Your task to perform on an android device: turn on translation in the chrome app Image 0: 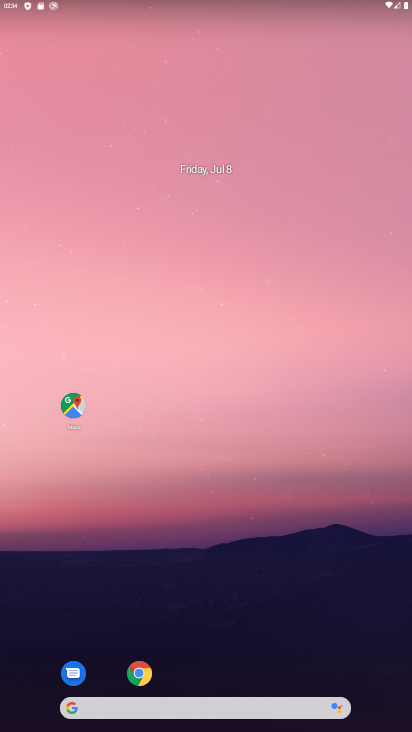
Step 0: click (134, 681)
Your task to perform on an android device: turn on translation in the chrome app Image 1: 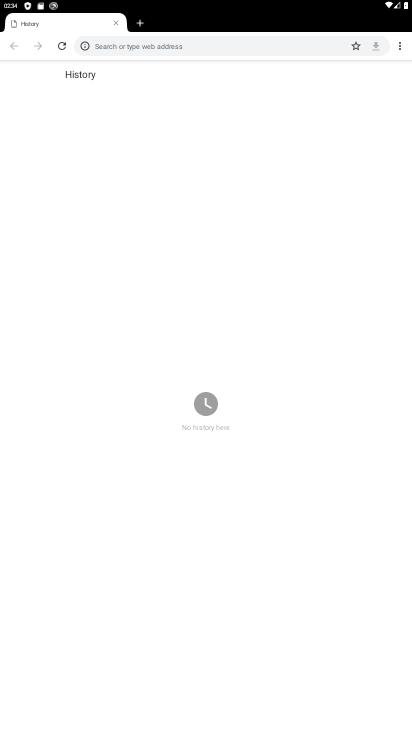
Step 1: drag from (396, 39) to (307, 210)
Your task to perform on an android device: turn on translation in the chrome app Image 2: 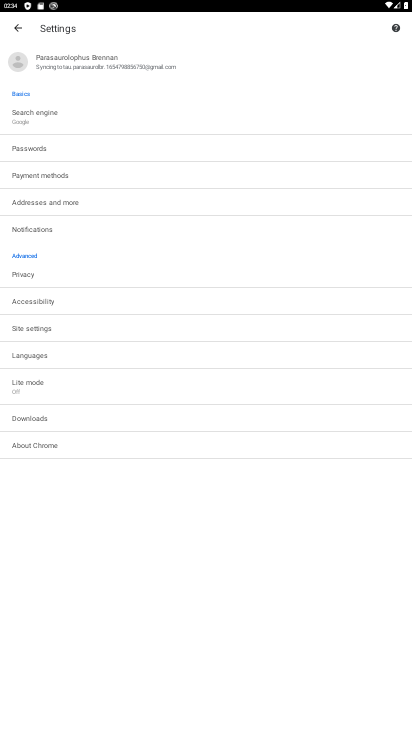
Step 2: click (79, 343)
Your task to perform on an android device: turn on translation in the chrome app Image 3: 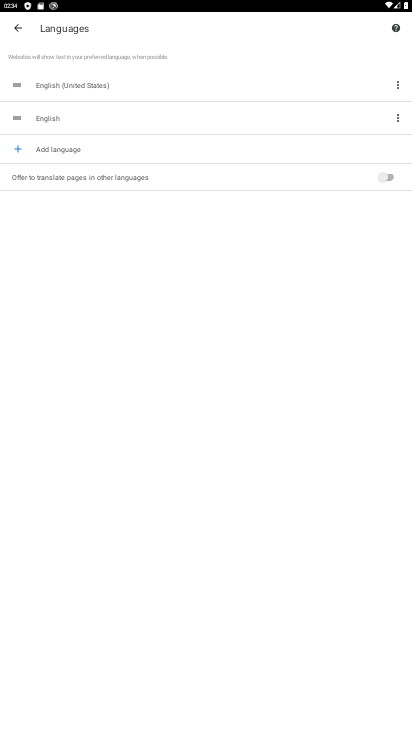
Step 3: click (203, 169)
Your task to perform on an android device: turn on translation in the chrome app Image 4: 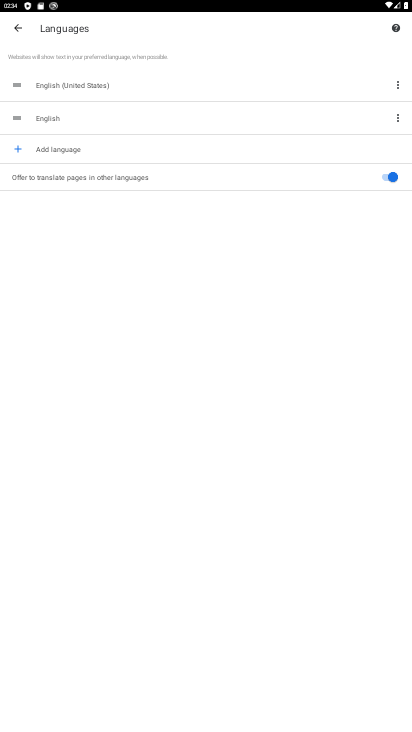
Step 4: task complete